Your task to perform on an android device: What's the weather? Image 0: 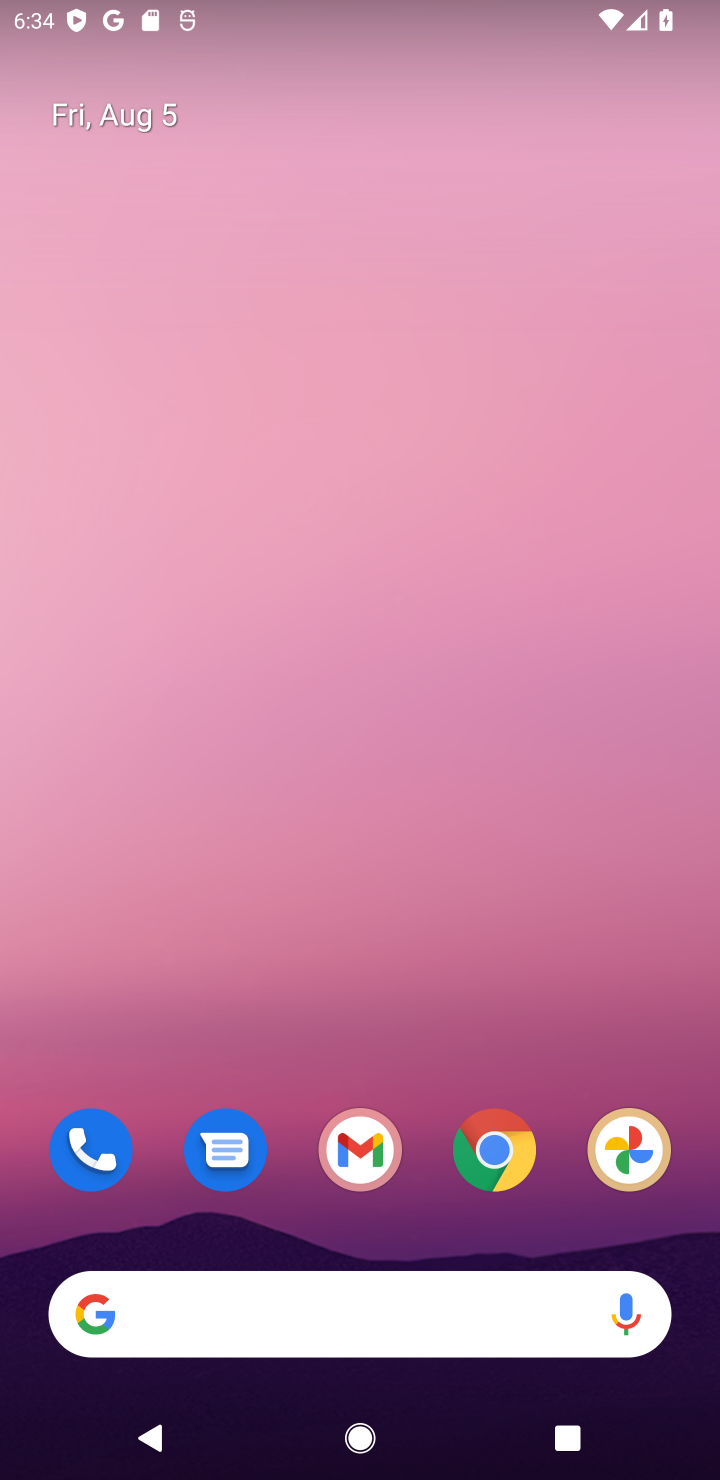
Step 0: click (247, 1306)
Your task to perform on an android device: What's the weather? Image 1: 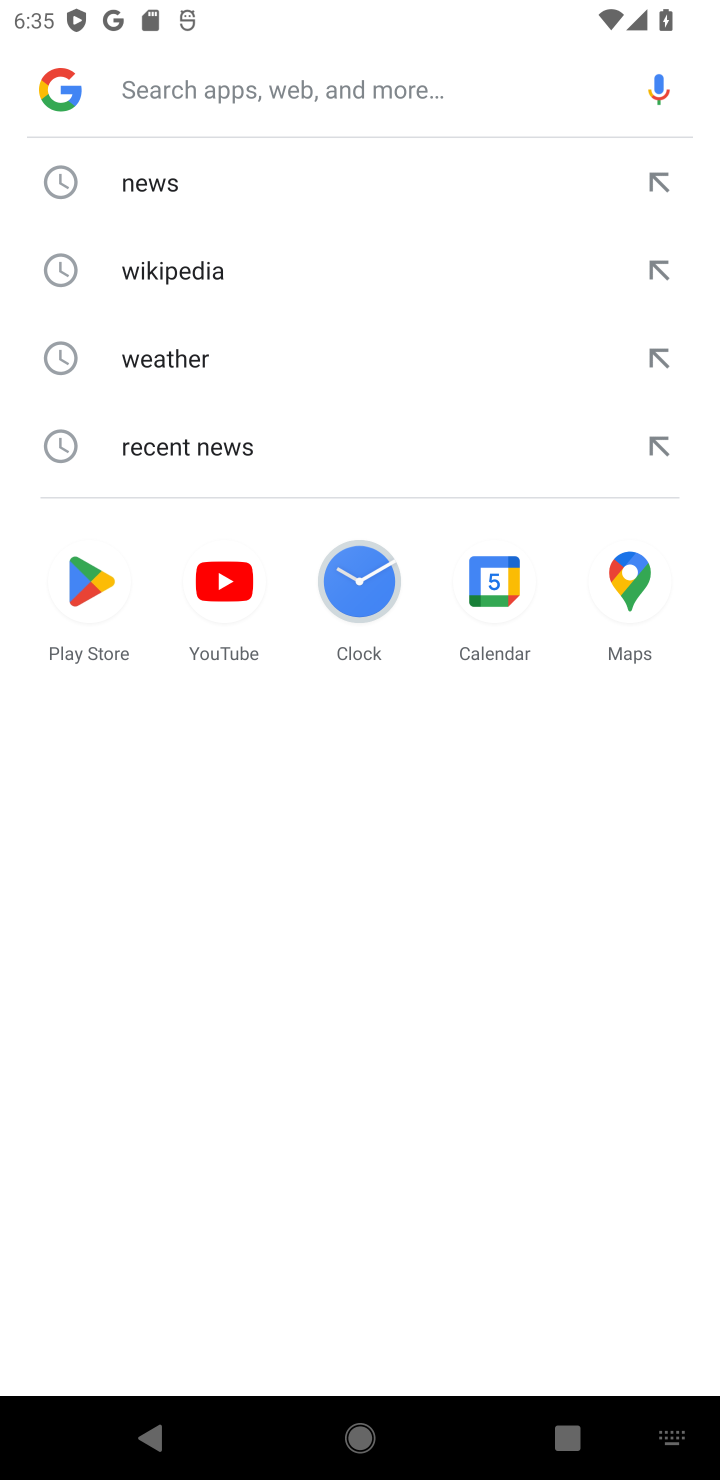
Step 1: type "What's the weather?"
Your task to perform on an android device: What's the weather? Image 2: 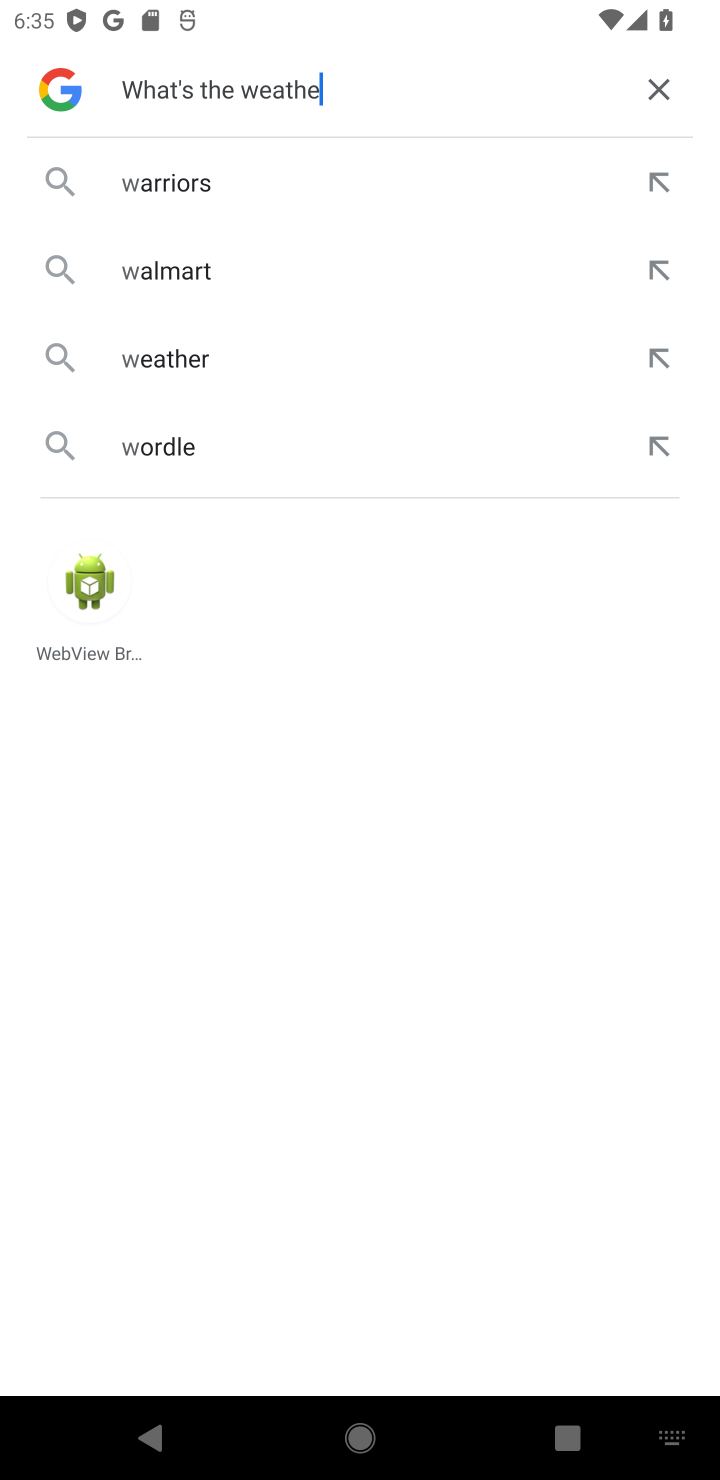
Step 2: press enter
Your task to perform on an android device: What's the weather? Image 3: 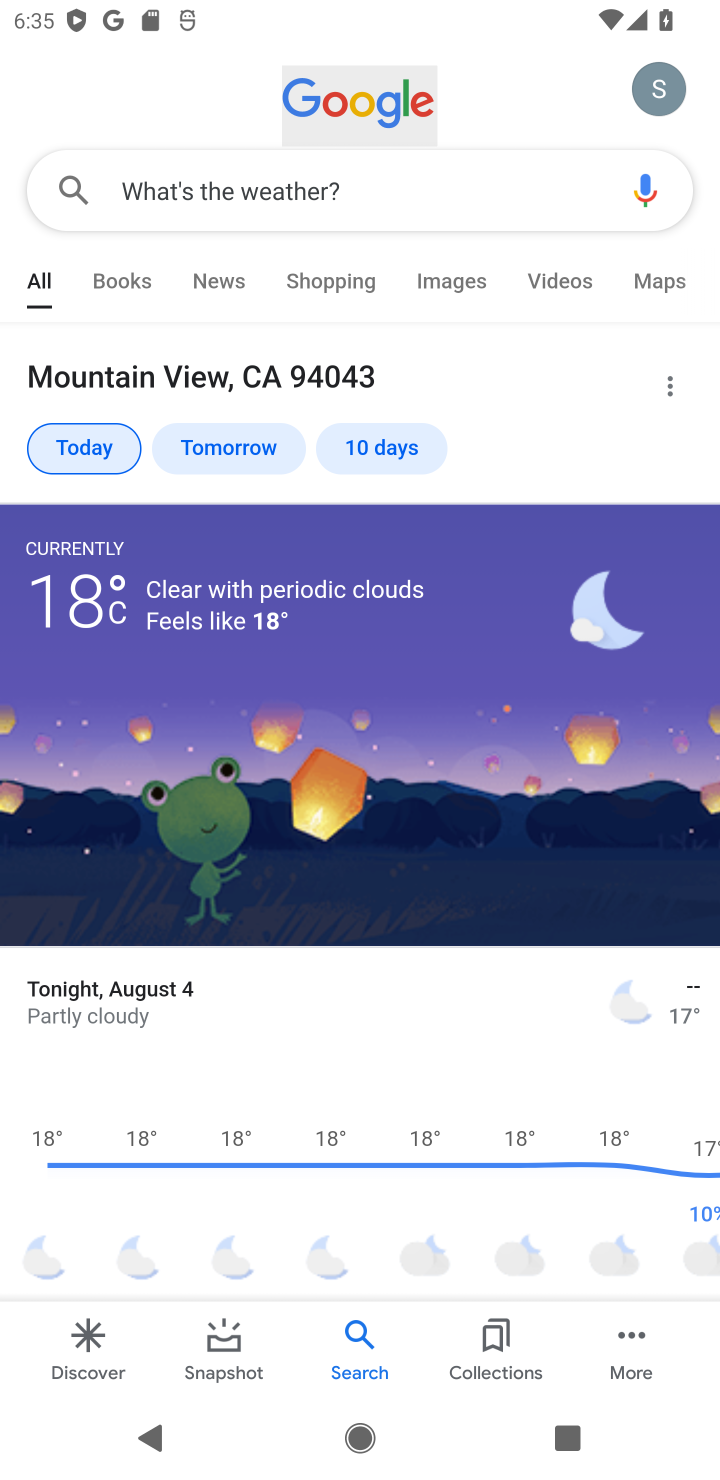
Step 3: task complete